Your task to perform on an android device: Is it going to rain tomorrow? Image 0: 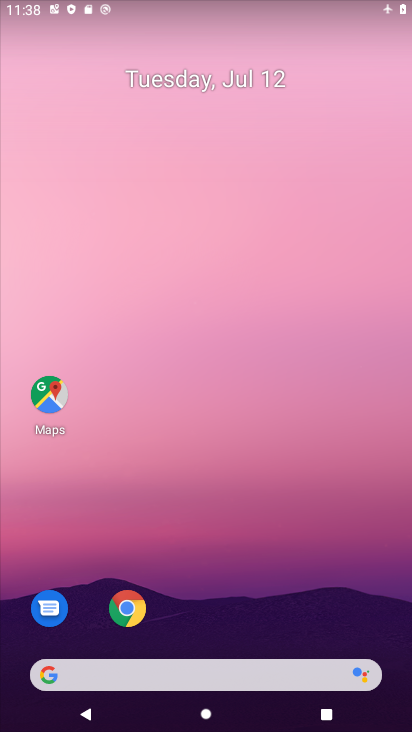
Step 0: click (241, 362)
Your task to perform on an android device: Is it going to rain tomorrow? Image 1: 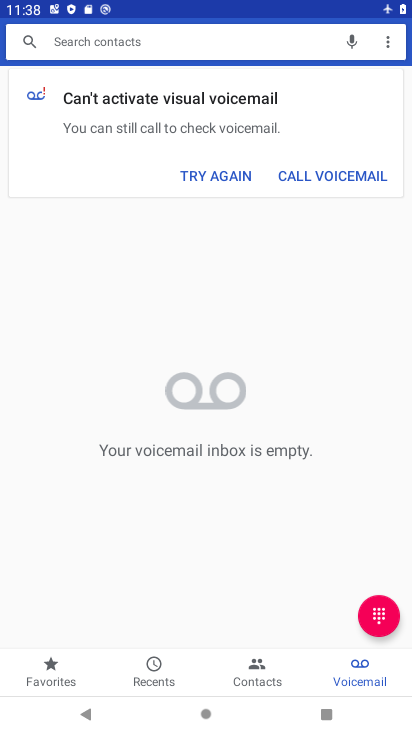
Step 1: press home button
Your task to perform on an android device: Is it going to rain tomorrow? Image 2: 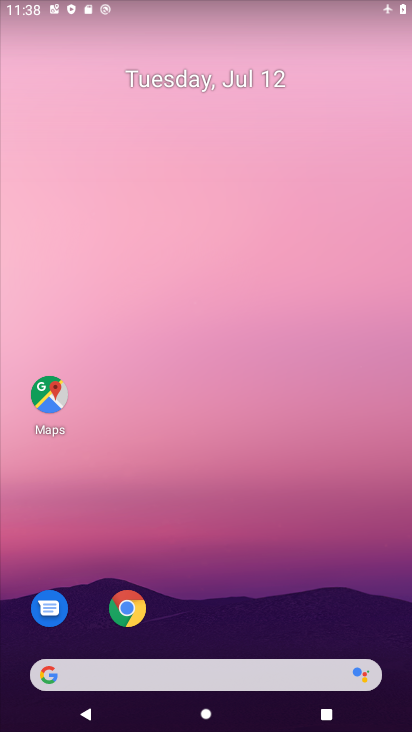
Step 2: drag from (251, 720) to (255, 141)
Your task to perform on an android device: Is it going to rain tomorrow? Image 3: 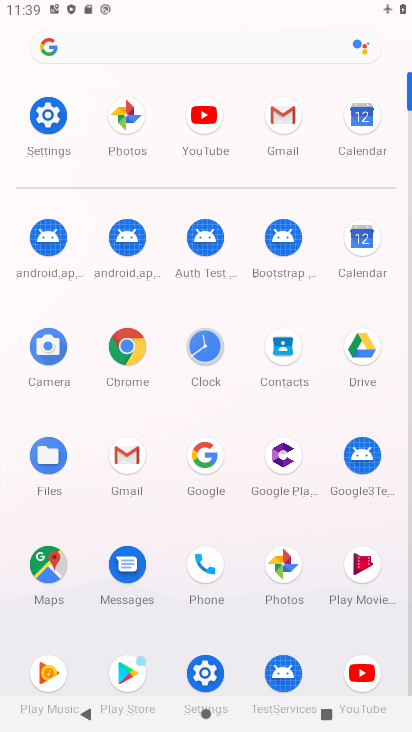
Step 3: click (361, 245)
Your task to perform on an android device: Is it going to rain tomorrow? Image 4: 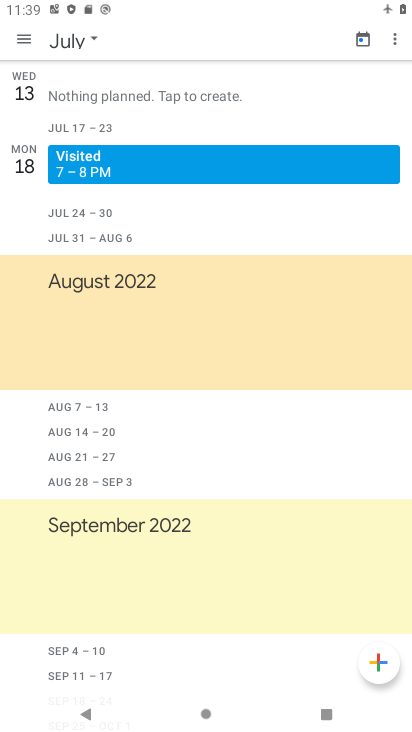
Step 4: press back button
Your task to perform on an android device: Is it going to rain tomorrow? Image 5: 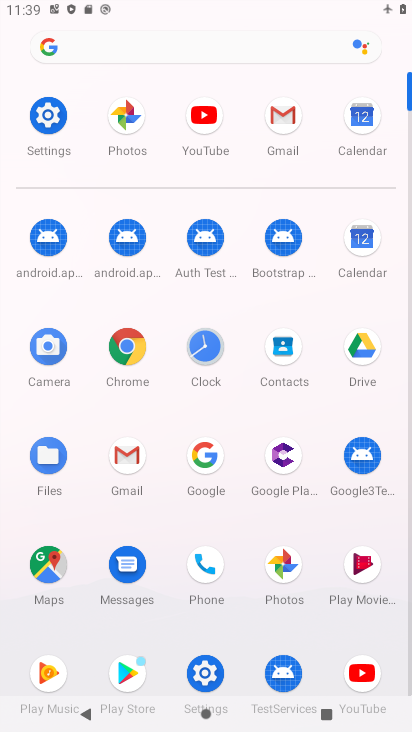
Step 5: click (201, 454)
Your task to perform on an android device: Is it going to rain tomorrow? Image 6: 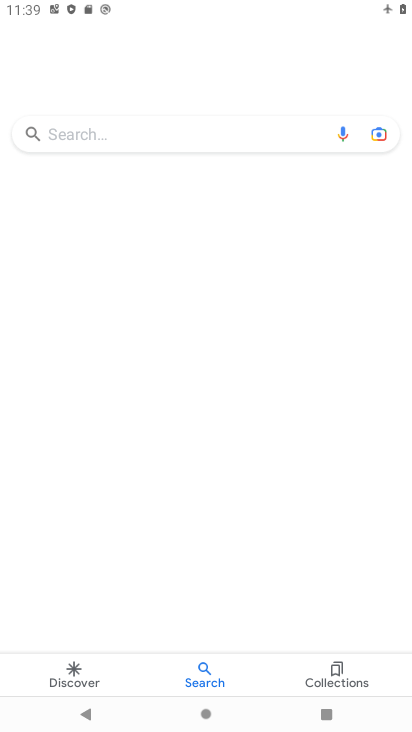
Step 6: click (73, 671)
Your task to perform on an android device: Is it going to rain tomorrow? Image 7: 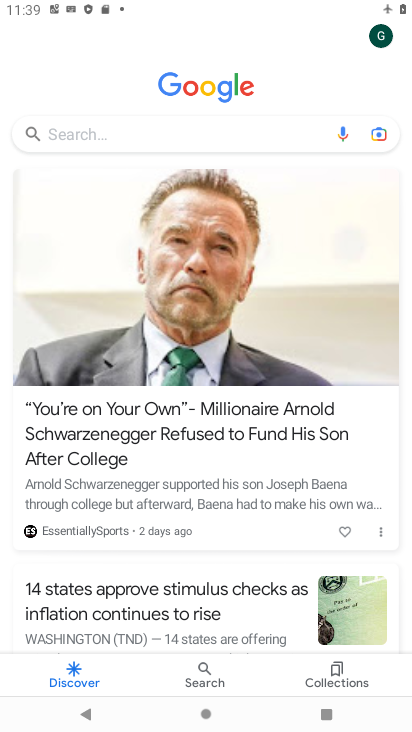
Step 7: click (229, 145)
Your task to perform on an android device: Is it going to rain tomorrow? Image 8: 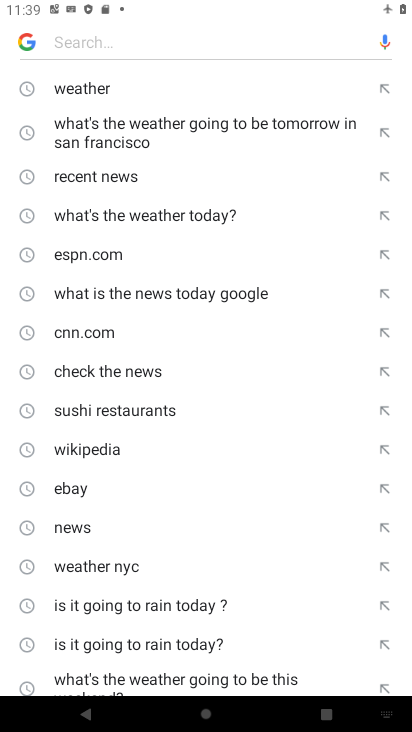
Step 8: click (94, 90)
Your task to perform on an android device: Is it going to rain tomorrow? Image 9: 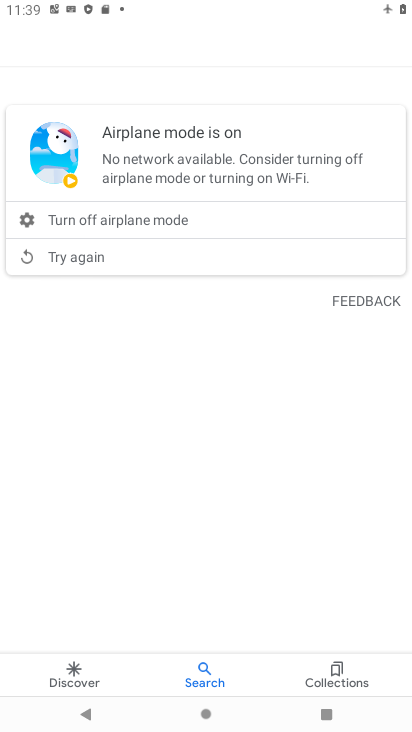
Step 9: task complete